Your task to perform on an android device: empty trash in google photos Image 0: 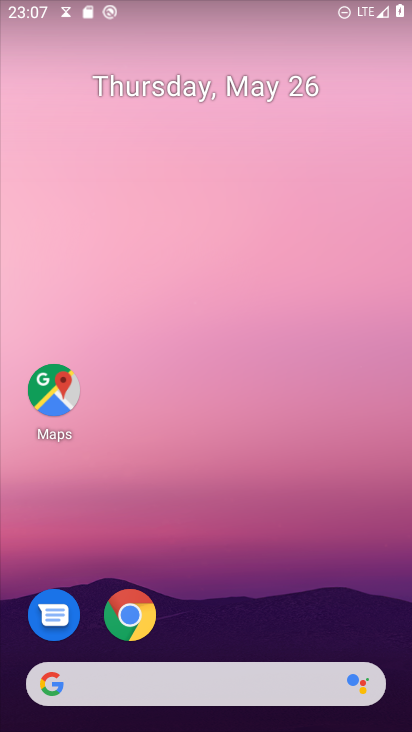
Step 0: drag from (201, 626) to (218, 210)
Your task to perform on an android device: empty trash in google photos Image 1: 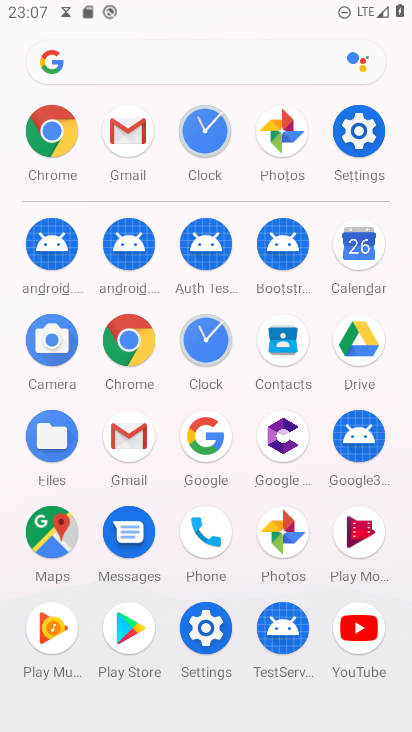
Step 1: click (285, 532)
Your task to perform on an android device: empty trash in google photos Image 2: 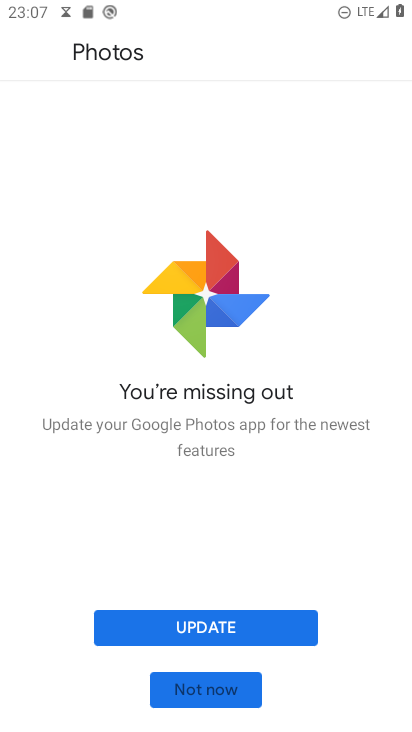
Step 2: click (200, 687)
Your task to perform on an android device: empty trash in google photos Image 3: 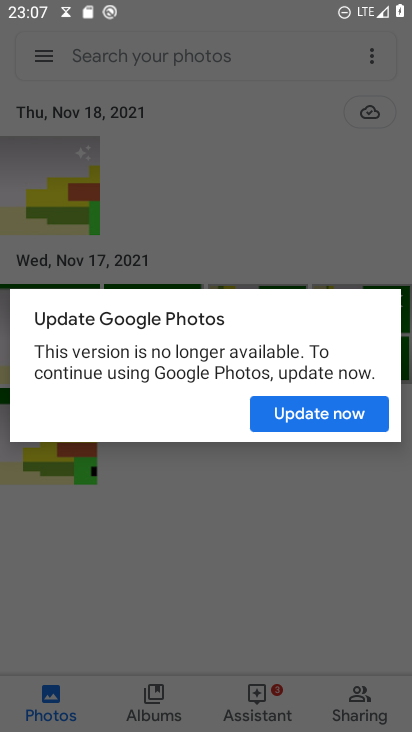
Step 3: click (326, 414)
Your task to perform on an android device: empty trash in google photos Image 4: 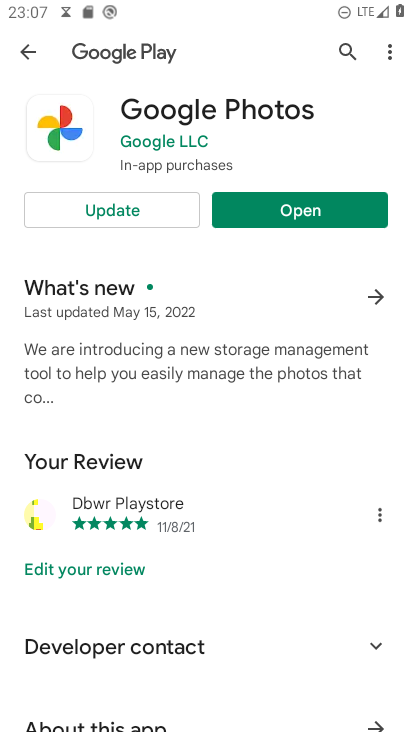
Step 4: press back button
Your task to perform on an android device: empty trash in google photos Image 5: 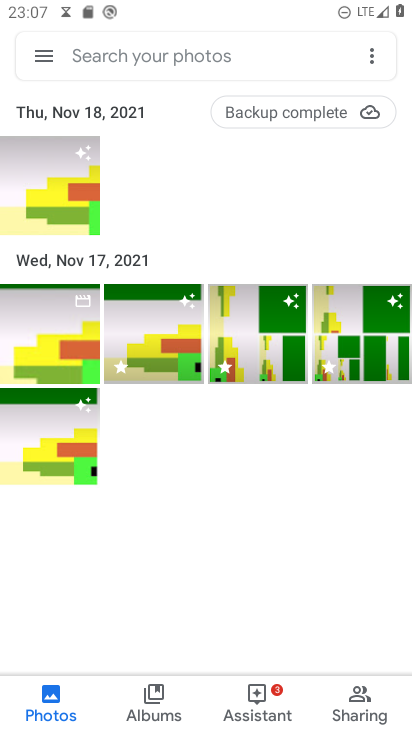
Step 5: click (35, 50)
Your task to perform on an android device: empty trash in google photos Image 6: 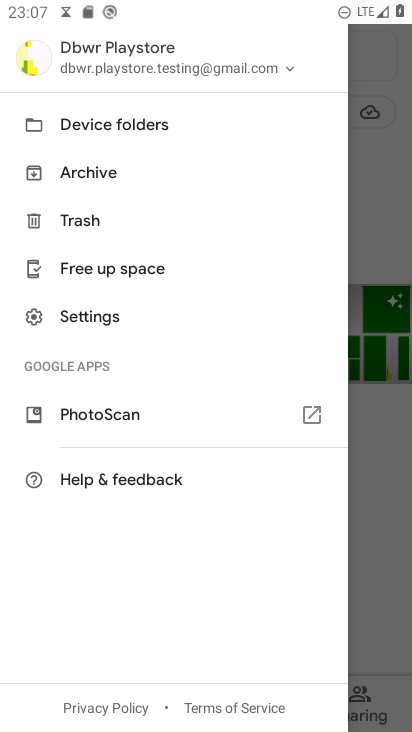
Step 6: click (88, 223)
Your task to perform on an android device: empty trash in google photos Image 7: 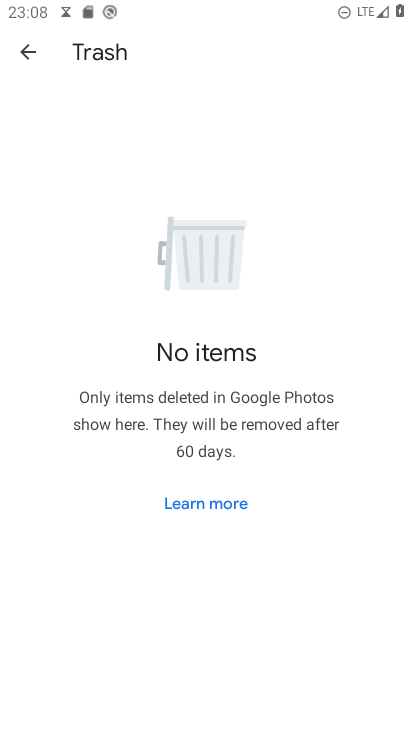
Step 7: task complete